Your task to perform on an android device: uninstall "Instagram" Image 0: 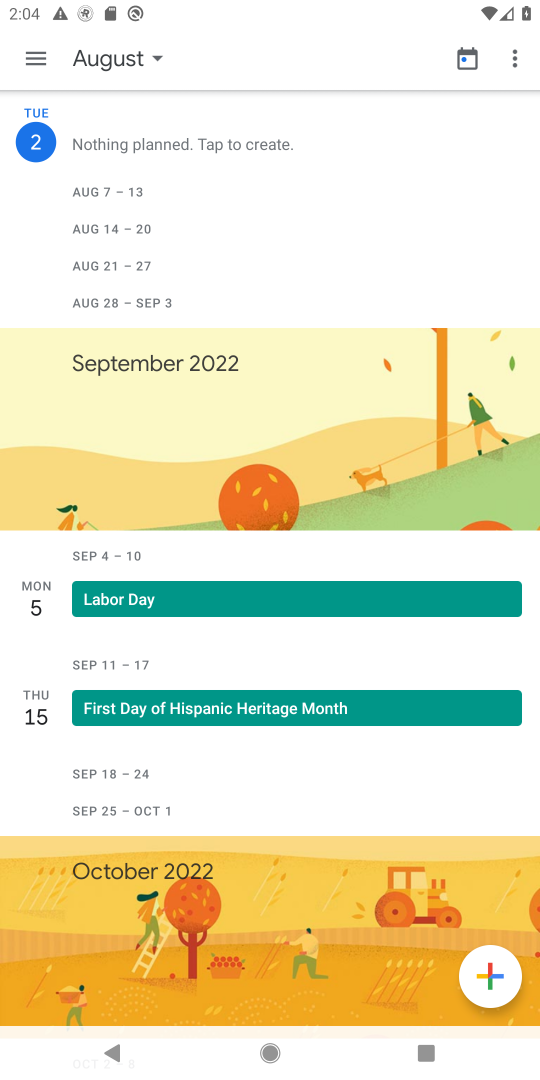
Step 0: press home button
Your task to perform on an android device: uninstall "Instagram" Image 1: 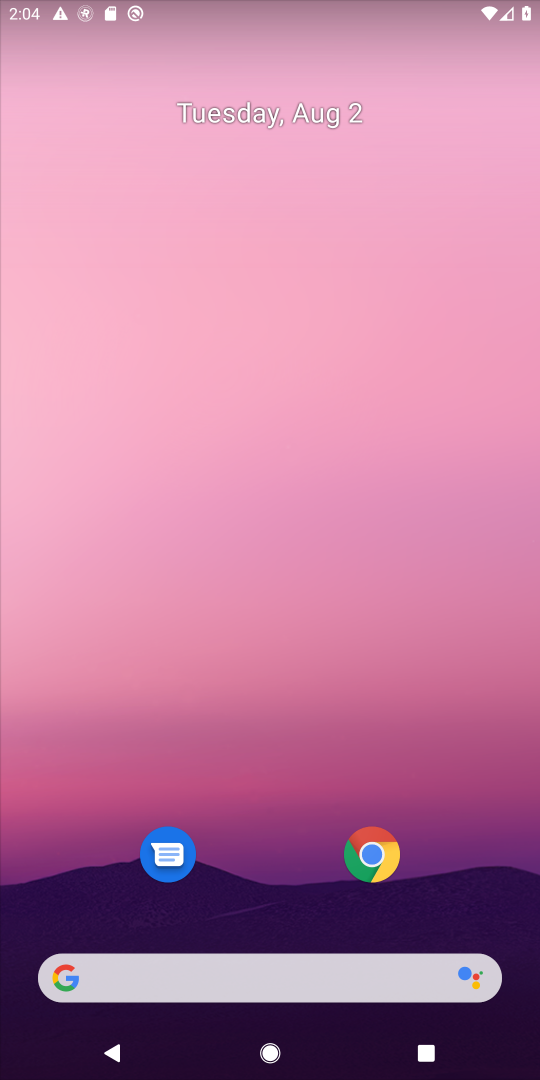
Step 1: drag from (306, 933) to (279, 53)
Your task to perform on an android device: uninstall "Instagram" Image 2: 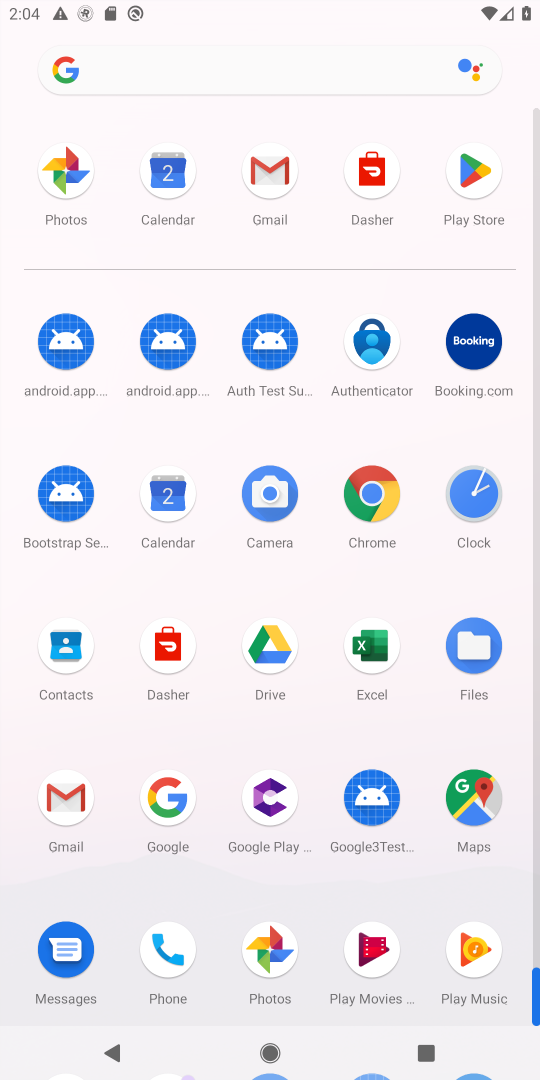
Step 2: click (464, 172)
Your task to perform on an android device: uninstall "Instagram" Image 3: 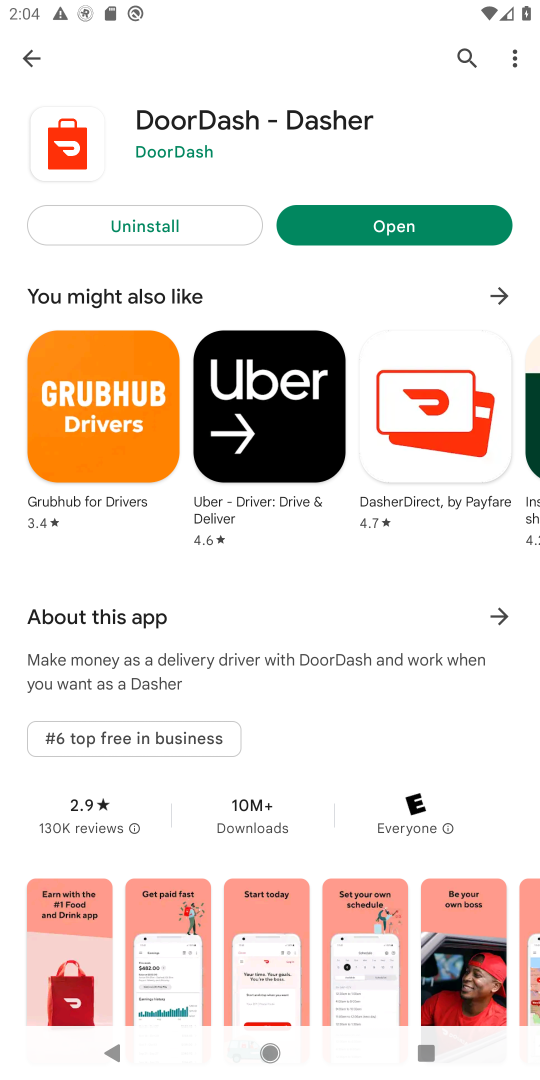
Step 3: click (466, 51)
Your task to perform on an android device: uninstall "Instagram" Image 4: 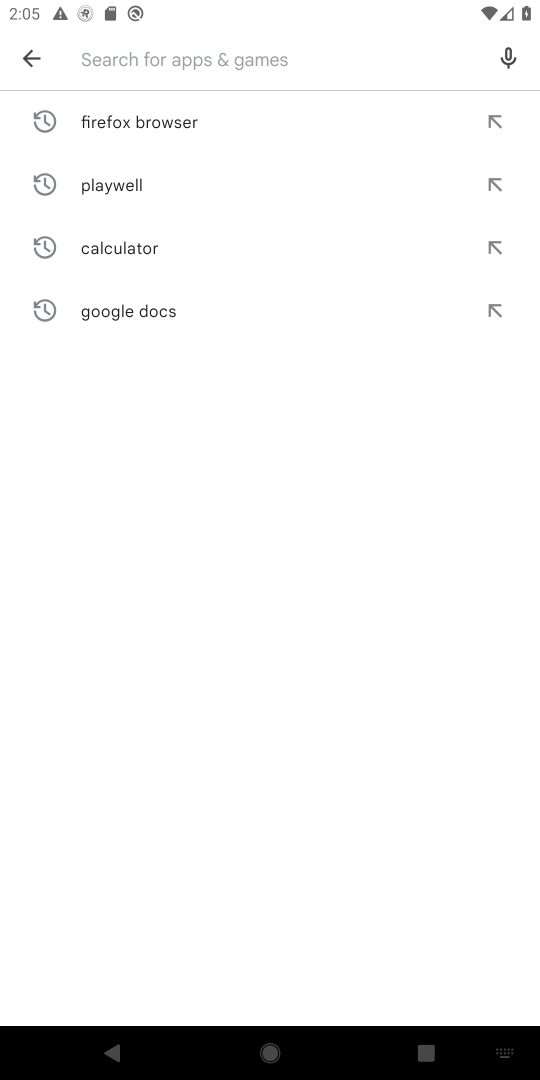
Step 4: type "Instagram"
Your task to perform on an android device: uninstall "Instagram" Image 5: 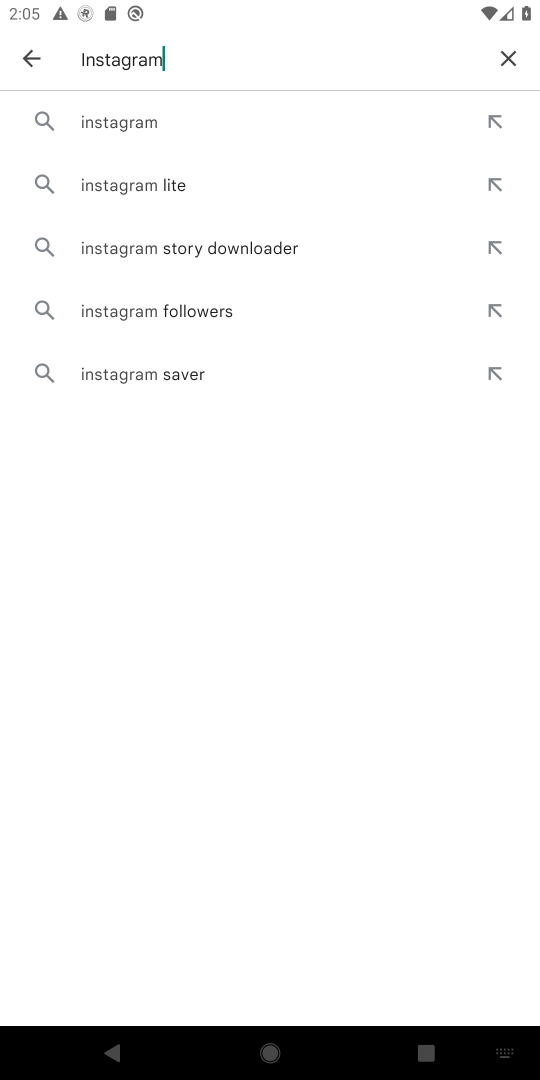
Step 5: click (113, 117)
Your task to perform on an android device: uninstall "Instagram" Image 6: 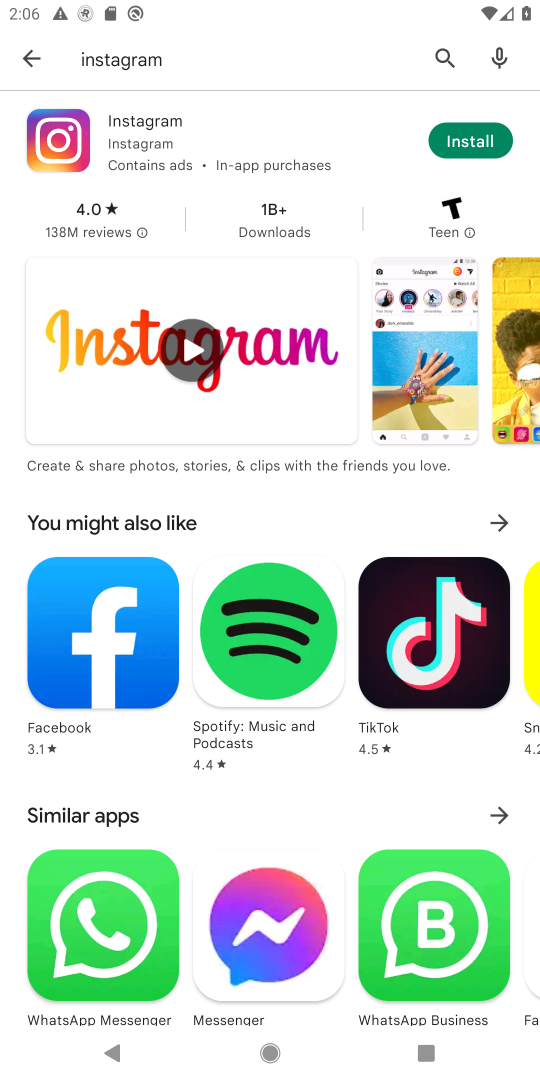
Step 6: click (117, 127)
Your task to perform on an android device: uninstall "Instagram" Image 7: 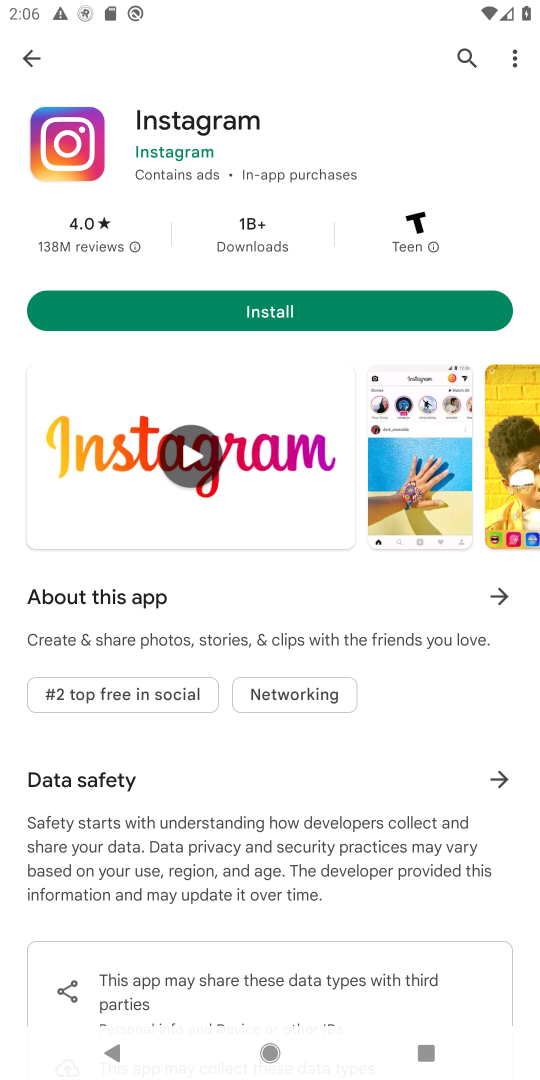
Step 7: task complete